Your task to perform on an android device: Check the weather Image 0: 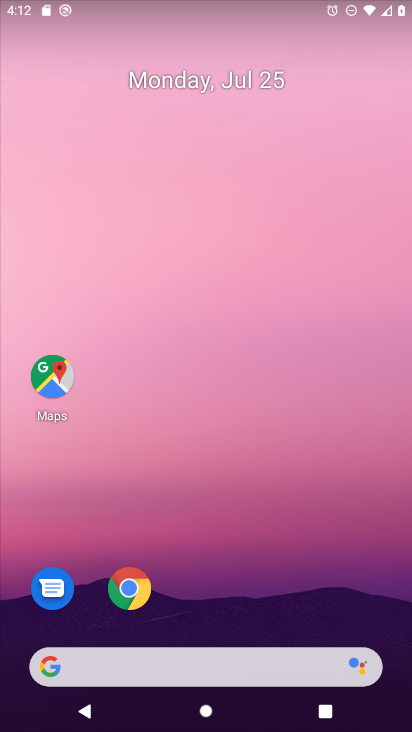
Step 0: drag from (234, 724) to (220, 39)
Your task to perform on an android device: Check the weather Image 1: 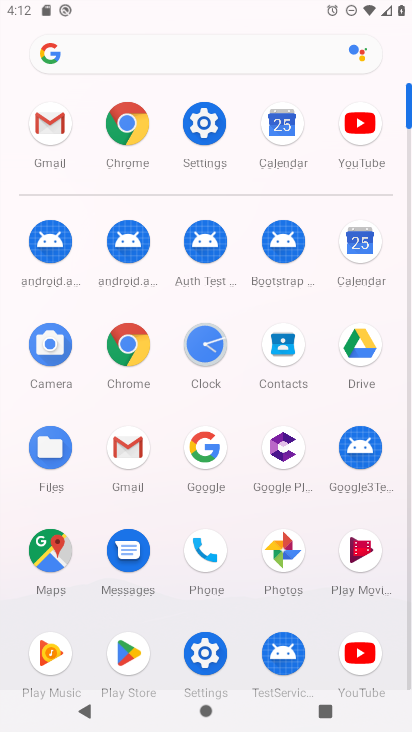
Step 1: click (196, 438)
Your task to perform on an android device: Check the weather Image 2: 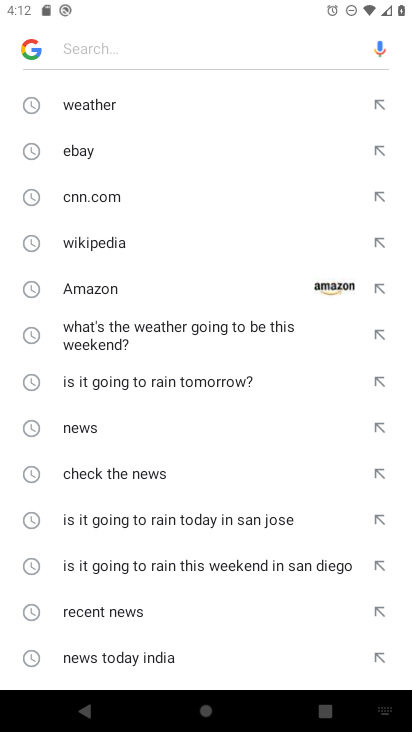
Step 2: click (96, 102)
Your task to perform on an android device: Check the weather Image 3: 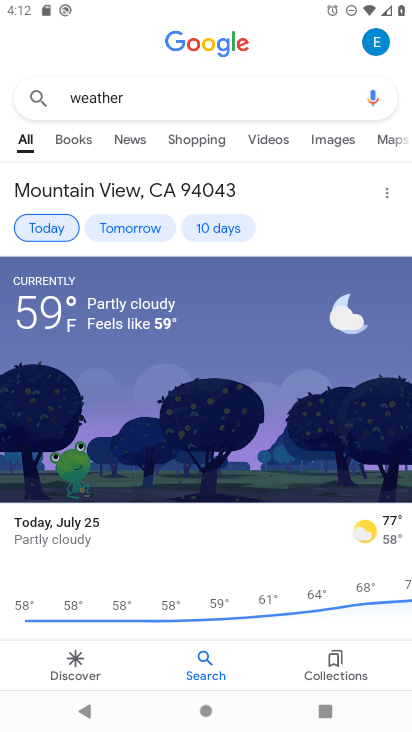
Step 3: task complete